Your task to perform on an android device: What's the weather today? Image 0: 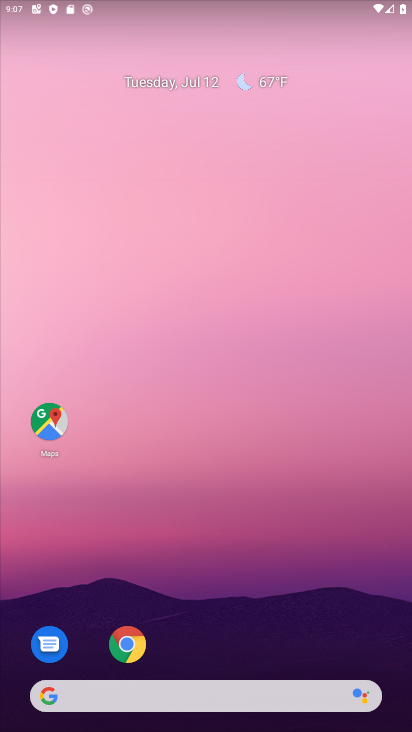
Step 0: drag from (210, 157) to (223, 28)
Your task to perform on an android device: What's the weather today? Image 1: 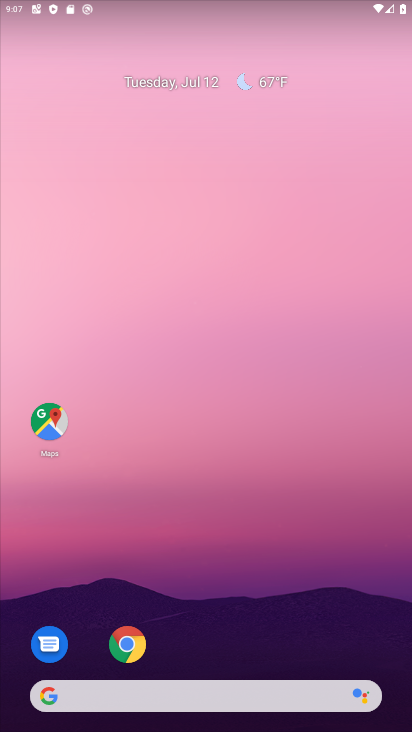
Step 1: drag from (202, 531) to (202, 112)
Your task to perform on an android device: What's the weather today? Image 2: 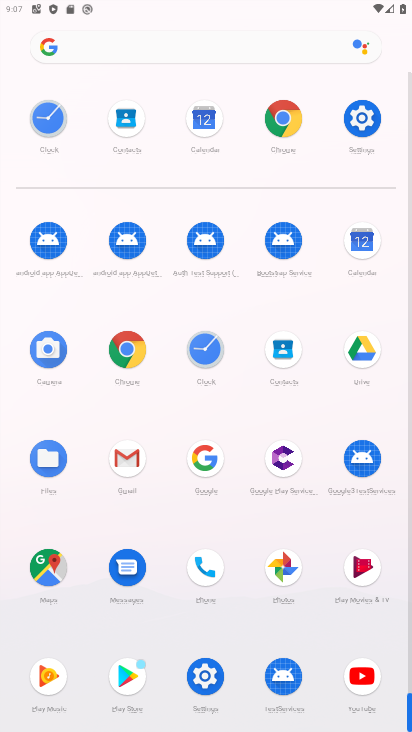
Step 2: click (204, 43)
Your task to perform on an android device: What's the weather today? Image 3: 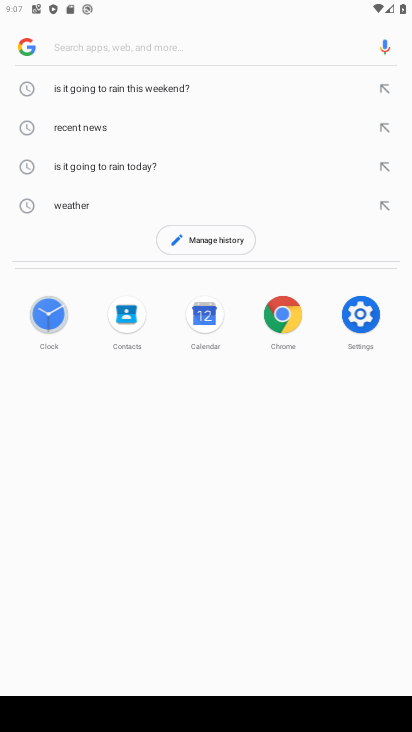
Step 3: click (90, 200)
Your task to perform on an android device: What's the weather today? Image 4: 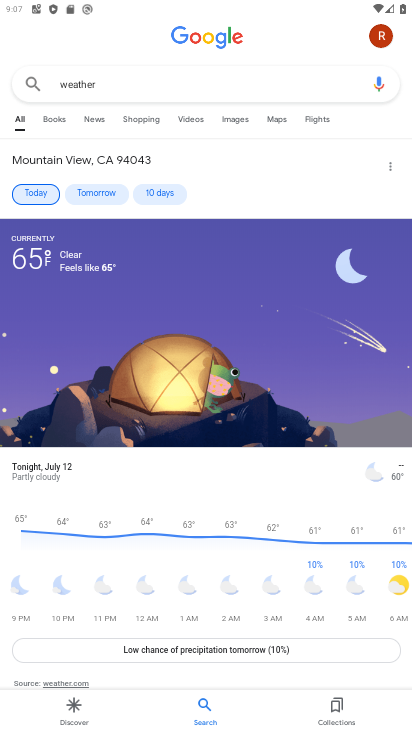
Step 4: task complete